Your task to perform on an android device: search for starred emails in the gmail app Image 0: 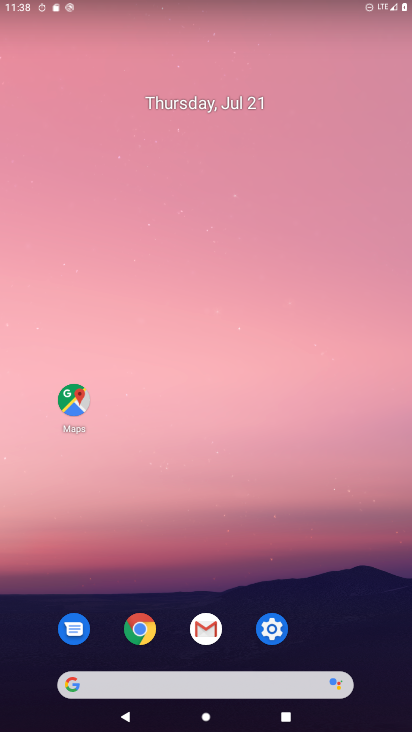
Step 0: click (206, 635)
Your task to perform on an android device: search for starred emails in the gmail app Image 1: 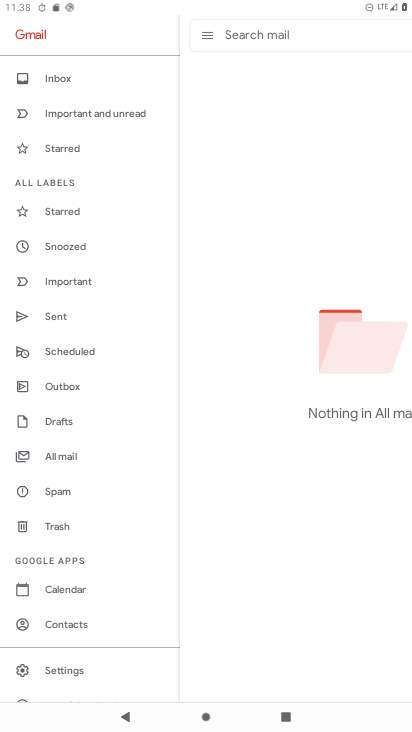
Step 1: click (45, 151)
Your task to perform on an android device: search for starred emails in the gmail app Image 2: 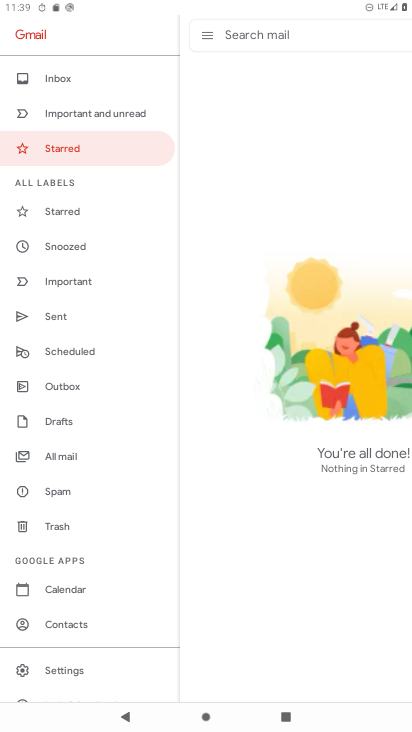
Step 2: task complete